Your task to perform on an android device: find snoozed emails in the gmail app Image 0: 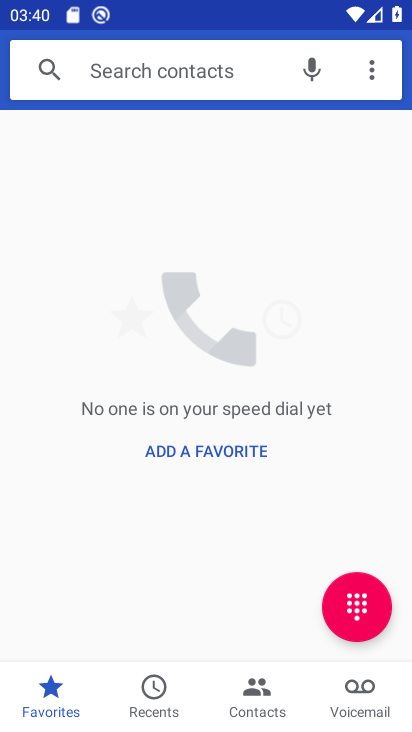
Step 0: press home button
Your task to perform on an android device: find snoozed emails in the gmail app Image 1: 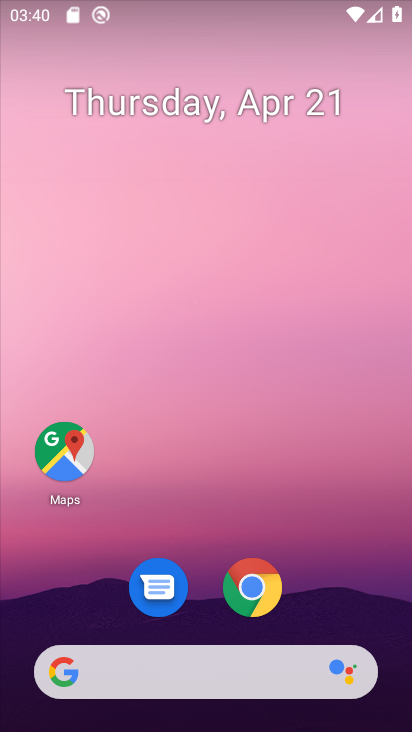
Step 1: drag from (330, 593) to (334, 280)
Your task to perform on an android device: find snoozed emails in the gmail app Image 2: 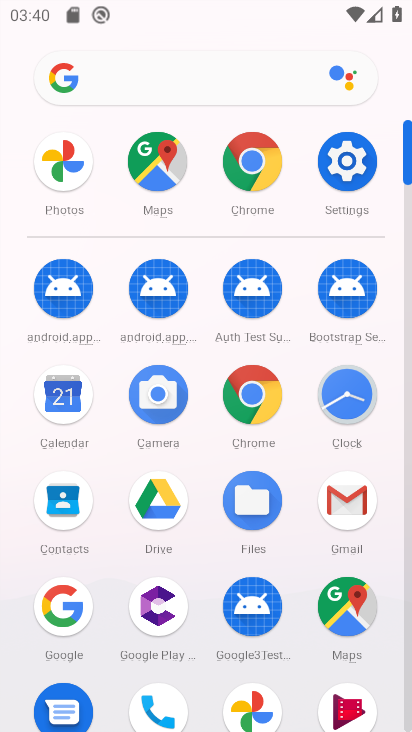
Step 2: click (352, 513)
Your task to perform on an android device: find snoozed emails in the gmail app Image 3: 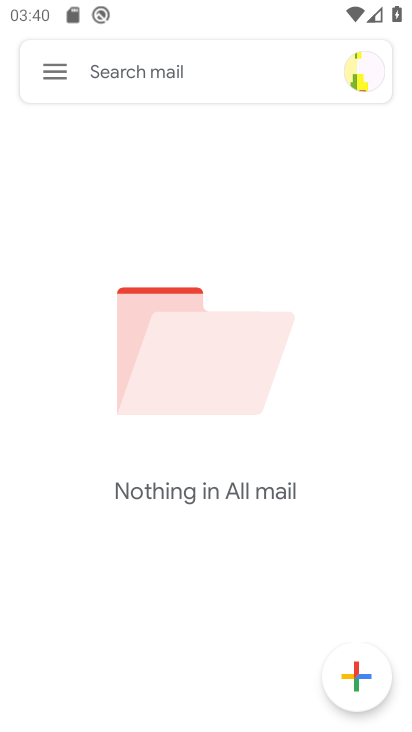
Step 3: click (50, 82)
Your task to perform on an android device: find snoozed emails in the gmail app Image 4: 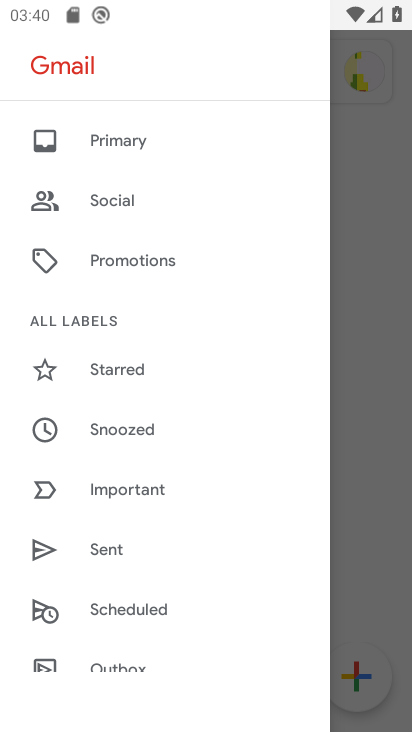
Step 4: drag from (245, 568) to (267, 394)
Your task to perform on an android device: find snoozed emails in the gmail app Image 5: 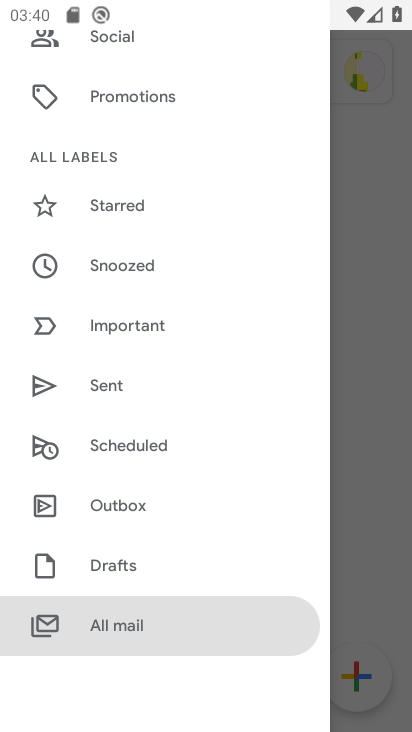
Step 5: drag from (247, 623) to (251, 452)
Your task to perform on an android device: find snoozed emails in the gmail app Image 6: 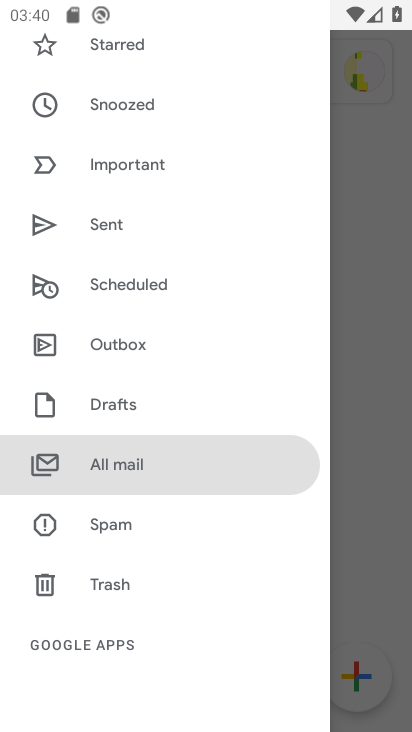
Step 6: drag from (230, 599) to (244, 468)
Your task to perform on an android device: find snoozed emails in the gmail app Image 7: 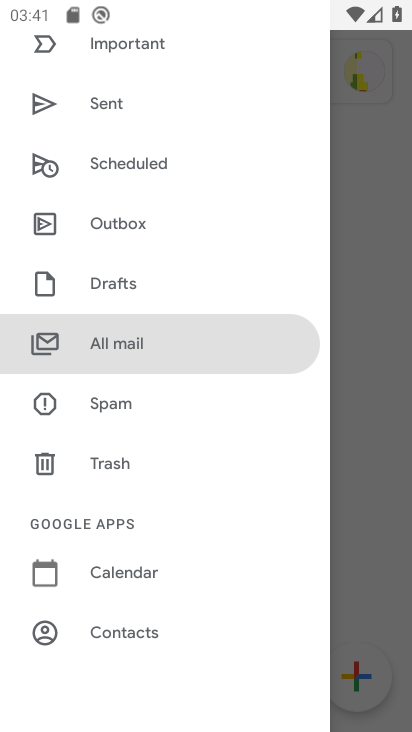
Step 7: drag from (242, 636) to (248, 491)
Your task to perform on an android device: find snoozed emails in the gmail app Image 8: 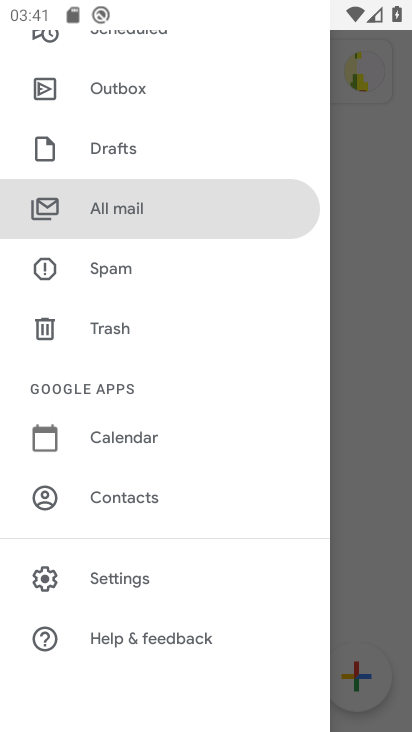
Step 8: drag from (252, 337) to (250, 486)
Your task to perform on an android device: find snoozed emails in the gmail app Image 9: 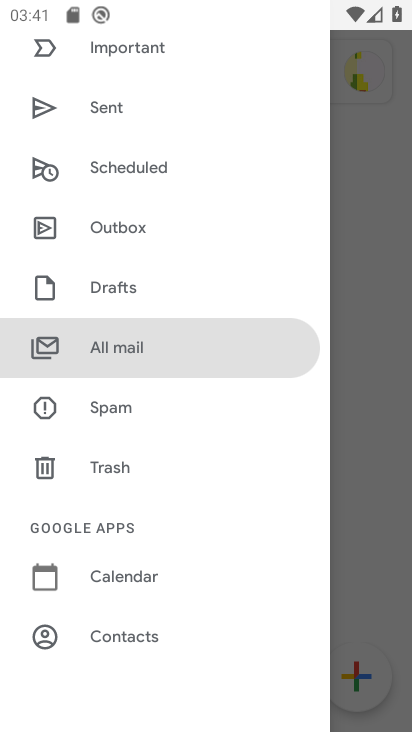
Step 9: drag from (249, 276) to (245, 465)
Your task to perform on an android device: find snoozed emails in the gmail app Image 10: 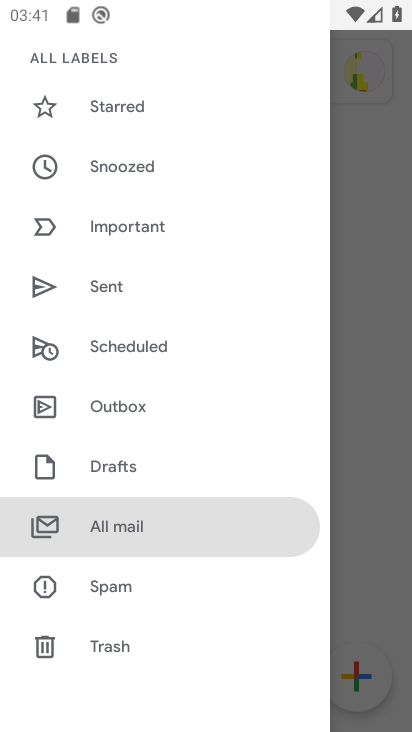
Step 10: drag from (236, 259) to (224, 389)
Your task to perform on an android device: find snoozed emails in the gmail app Image 11: 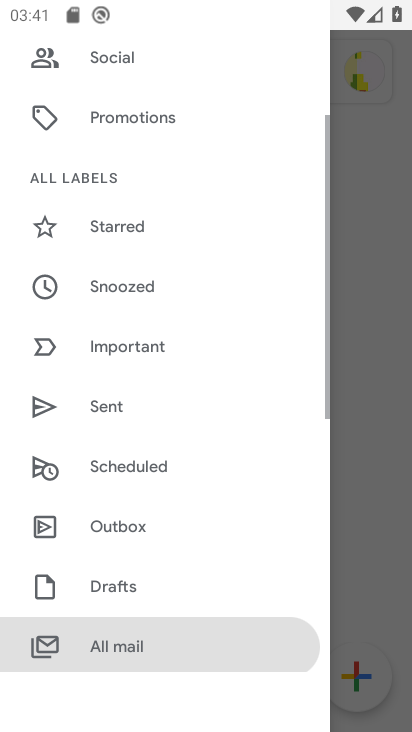
Step 11: click (131, 279)
Your task to perform on an android device: find snoozed emails in the gmail app Image 12: 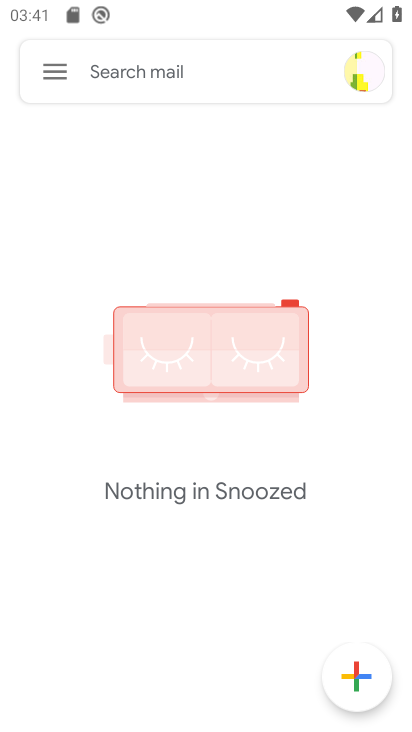
Step 12: task complete